Your task to perform on an android device: What's the weather? Image 0: 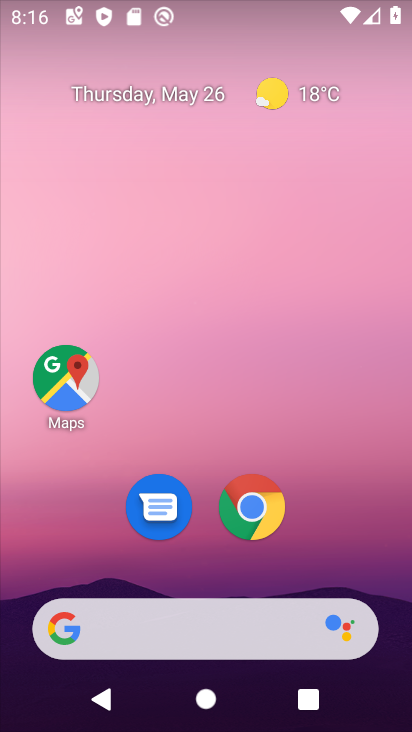
Step 0: drag from (289, 669) to (140, 162)
Your task to perform on an android device: What's the weather? Image 1: 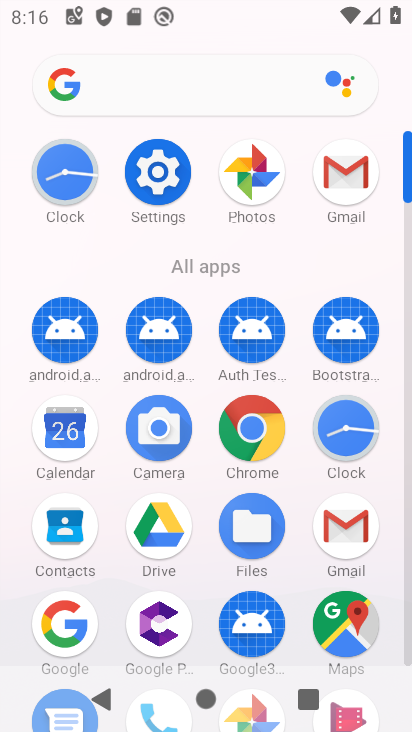
Step 1: click (260, 440)
Your task to perform on an android device: What's the weather? Image 2: 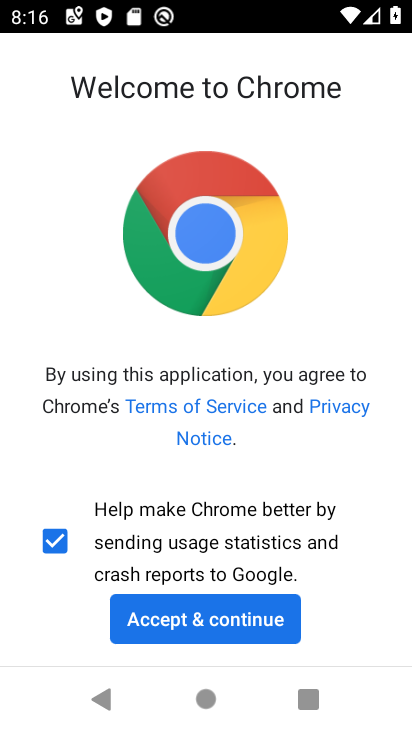
Step 2: click (248, 605)
Your task to perform on an android device: What's the weather? Image 3: 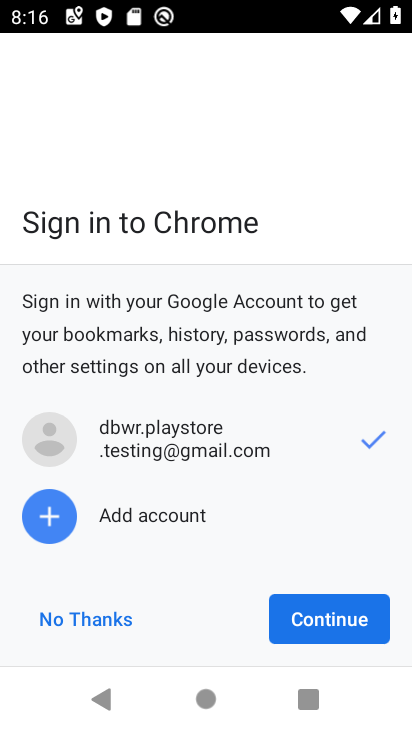
Step 3: click (372, 612)
Your task to perform on an android device: What's the weather? Image 4: 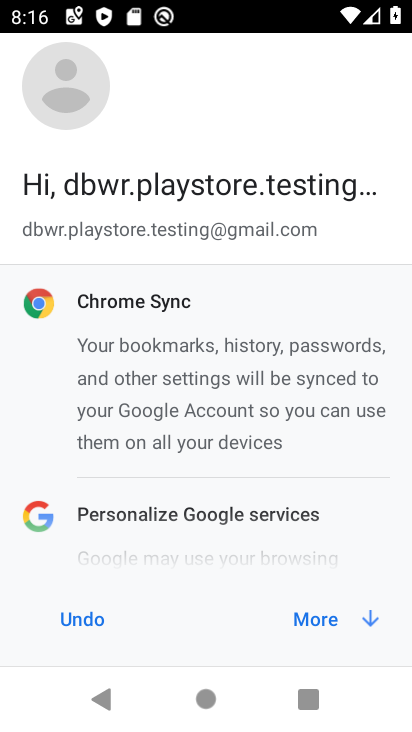
Step 4: click (370, 612)
Your task to perform on an android device: What's the weather? Image 5: 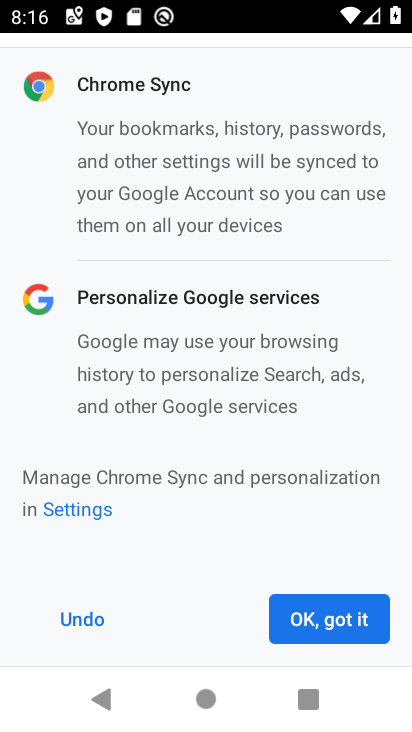
Step 5: click (359, 595)
Your task to perform on an android device: What's the weather? Image 6: 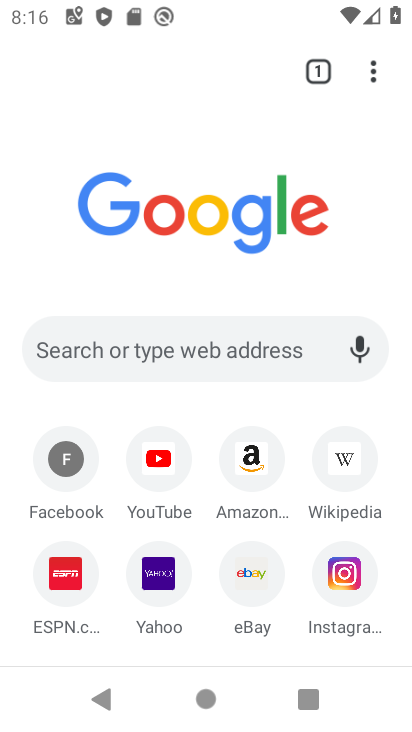
Step 6: click (186, 347)
Your task to perform on an android device: What's the weather? Image 7: 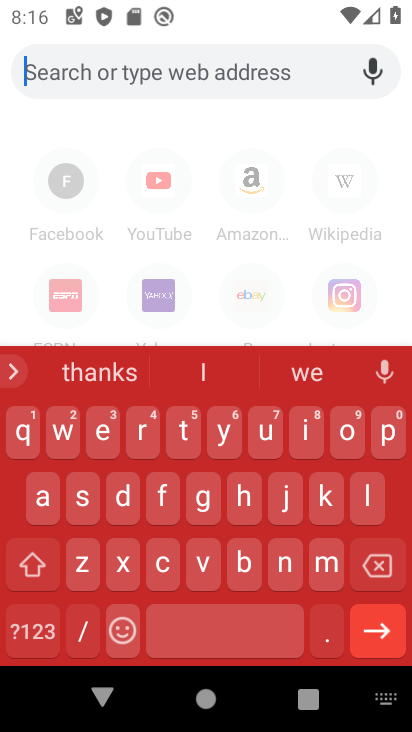
Step 7: click (67, 428)
Your task to perform on an android device: What's the weather? Image 8: 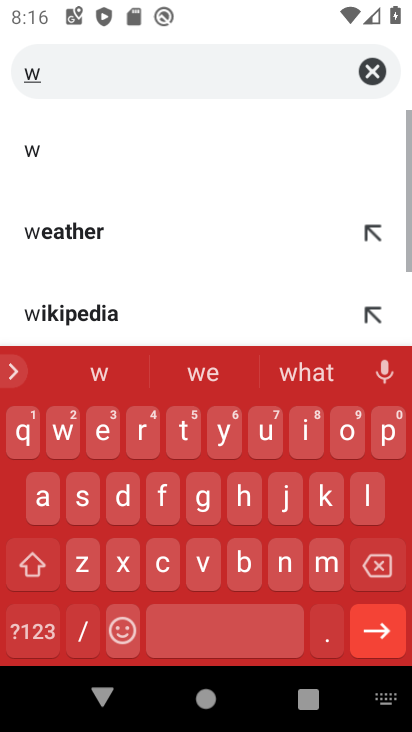
Step 8: click (249, 499)
Your task to perform on an android device: What's the weather? Image 9: 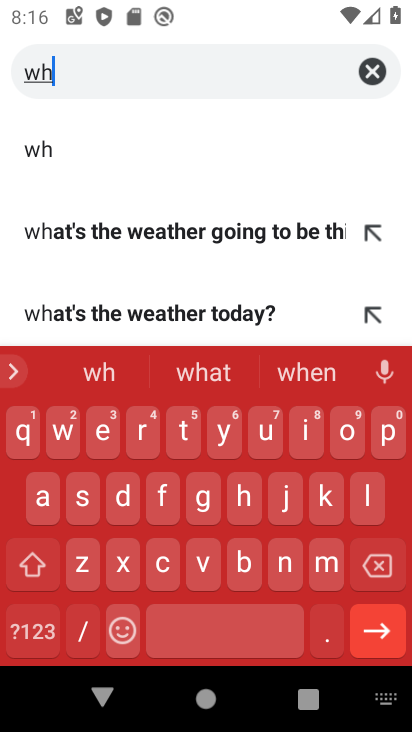
Step 9: click (382, 555)
Your task to perform on an android device: What's the weather? Image 10: 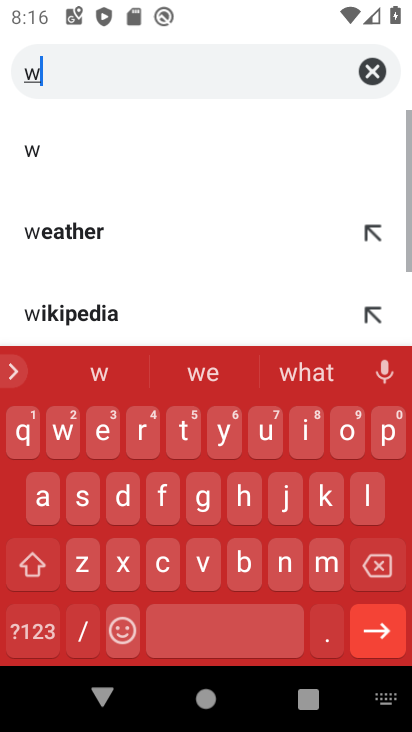
Step 10: click (98, 242)
Your task to perform on an android device: What's the weather? Image 11: 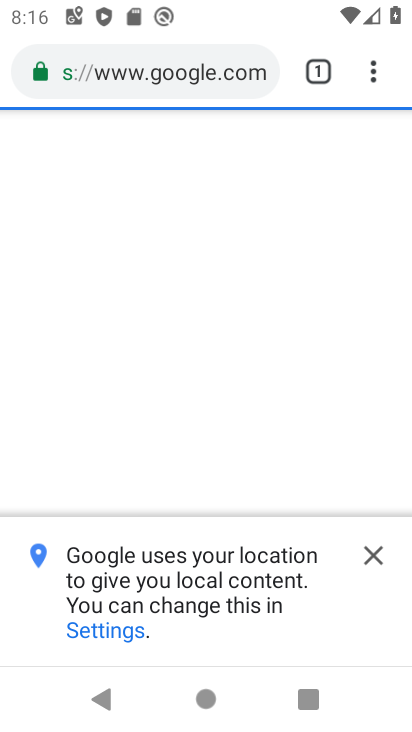
Step 11: click (373, 550)
Your task to perform on an android device: What's the weather? Image 12: 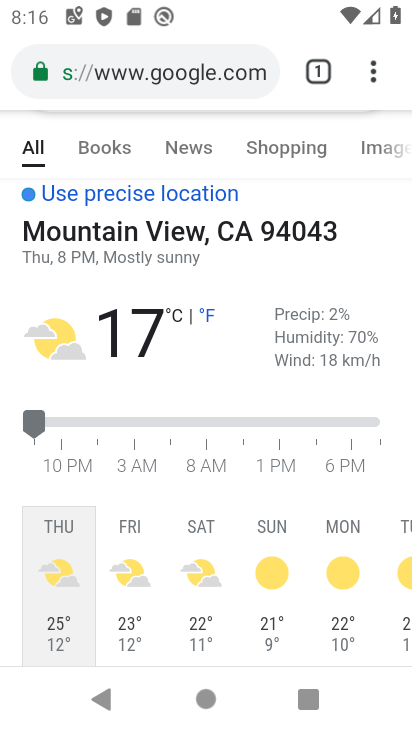
Step 12: task complete